Your task to perform on an android device: Search for a 100 ft extension cord Image 0: 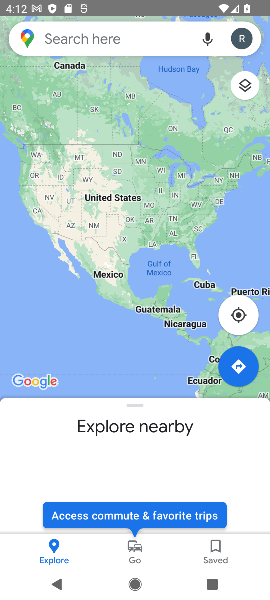
Step 0: press home button
Your task to perform on an android device: Search for a 100 ft extension cord Image 1: 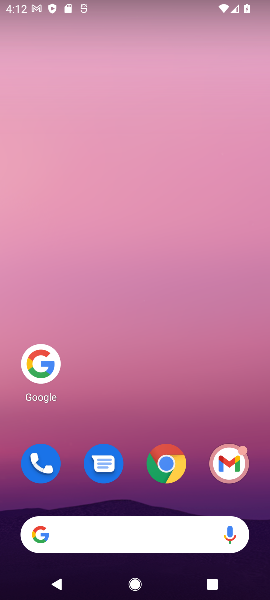
Step 1: click (43, 362)
Your task to perform on an android device: Search for a 100 ft extension cord Image 2: 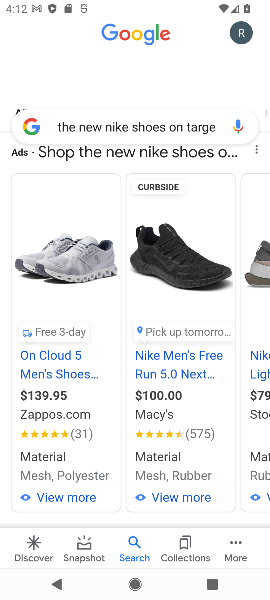
Step 2: click (148, 119)
Your task to perform on an android device: Search for a 100 ft extension cord Image 3: 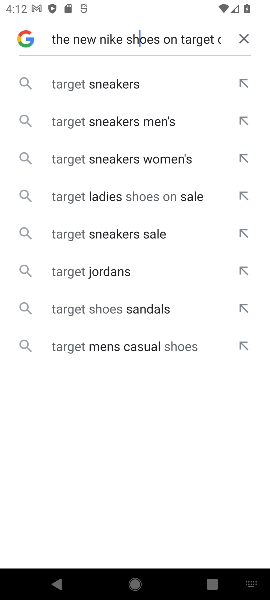
Step 3: click (243, 37)
Your task to perform on an android device: Search for a 100 ft extension cord Image 4: 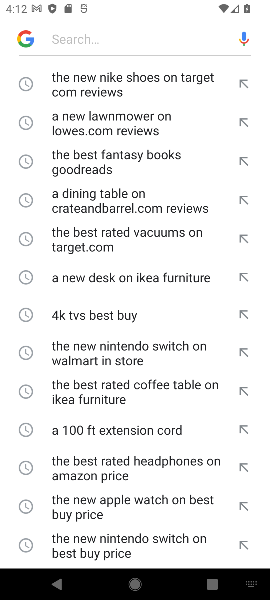
Step 4: click (133, 30)
Your task to perform on an android device: Search for a 100 ft extension cord Image 5: 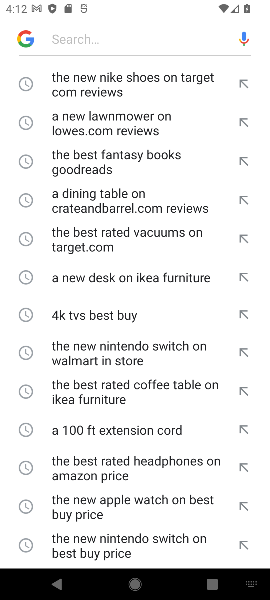
Step 5: type "a 100 ft extension cord "
Your task to perform on an android device: Search for a 100 ft extension cord Image 6: 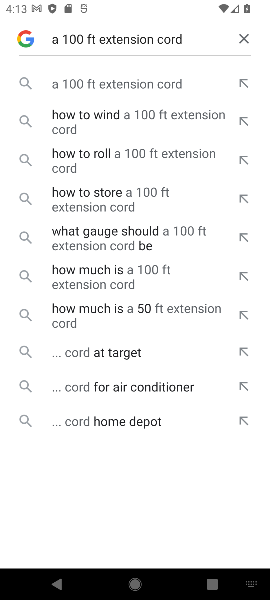
Step 6: click (130, 88)
Your task to perform on an android device: Search for a 100 ft extension cord Image 7: 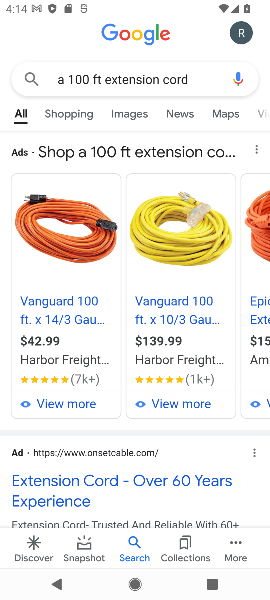
Step 7: task complete